Your task to perform on an android device: Open settings Image 0: 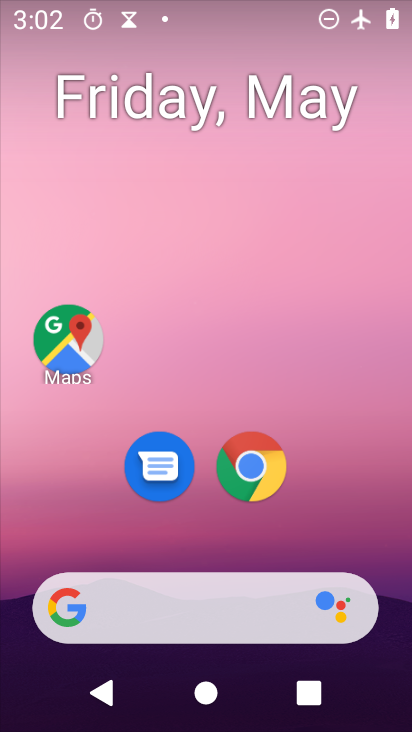
Step 0: drag from (340, 473) to (342, 1)
Your task to perform on an android device: Open settings Image 1: 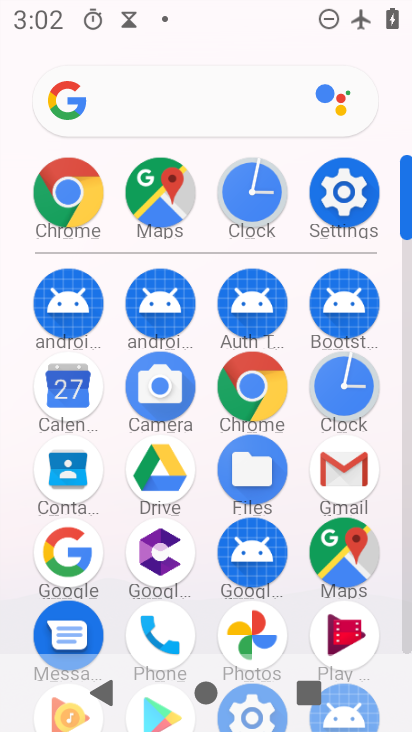
Step 1: click (344, 196)
Your task to perform on an android device: Open settings Image 2: 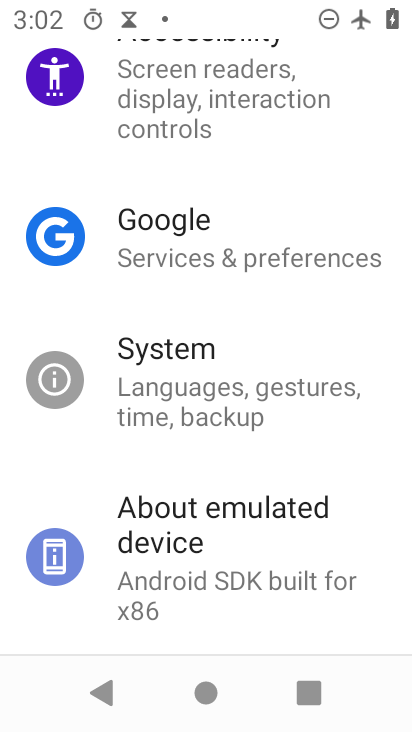
Step 2: task complete